Your task to perform on an android device: toggle priority inbox in the gmail app Image 0: 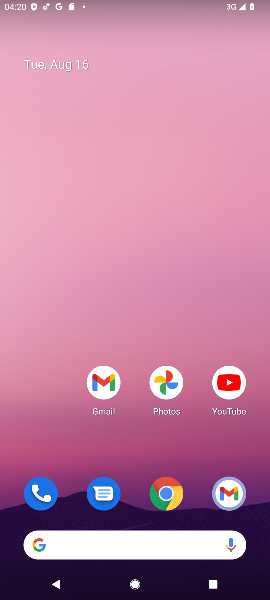
Step 0: press home button
Your task to perform on an android device: toggle priority inbox in the gmail app Image 1: 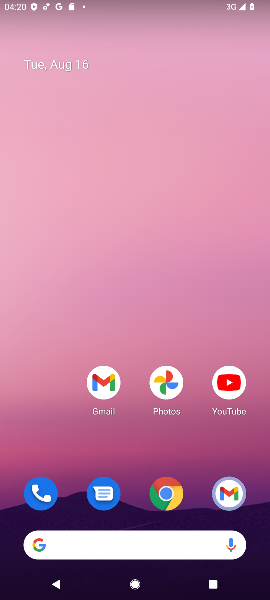
Step 1: drag from (68, 496) to (80, 182)
Your task to perform on an android device: toggle priority inbox in the gmail app Image 2: 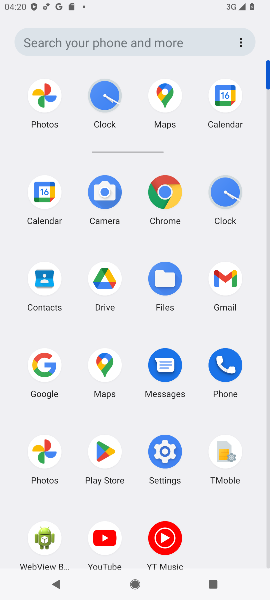
Step 2: click (224, 275)
Your task to perform on an android device: toggle priority inbox in the gmail app Image 3: 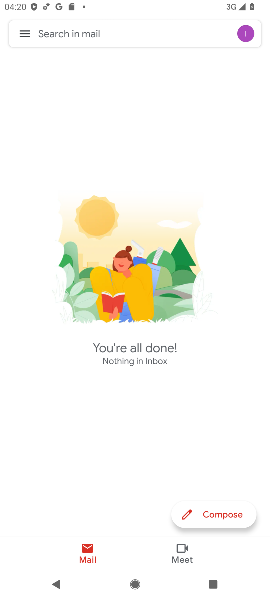
Step 3: click (26, 27)
Your task to perform on an android device: toggle priority inbox in the gmail app Image 4: 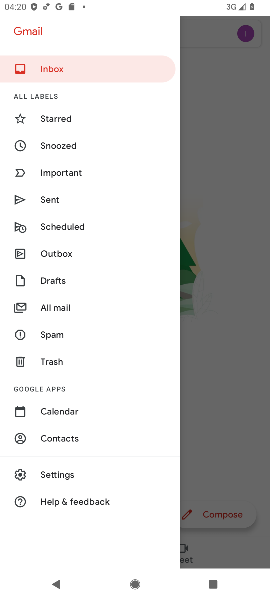
Step 4: click (73, 477)
Your task to perform on an android device: toggle priority inbox in the gmail app Image 5: 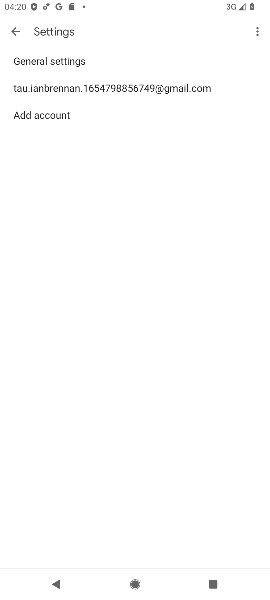
Step 5: click (117, 85)
Your task to perform on an android device: toggle priority inbox in the gmail app Image 6: 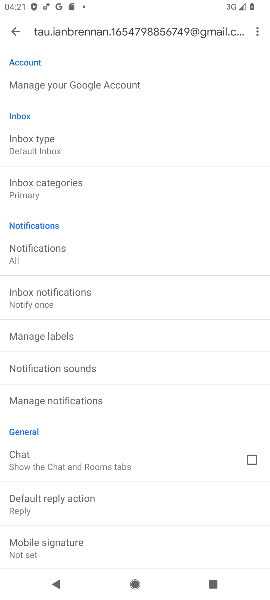
Step 6: click (77, 151)
Your task to perform on an android device: toggle priority inbox in the gmail app Image 7: 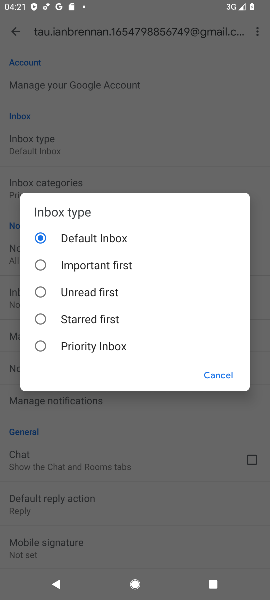
Step 7: click (97, 349)
Your task to perform on an android device: toggle priority inbox in the gmail app Image 8: 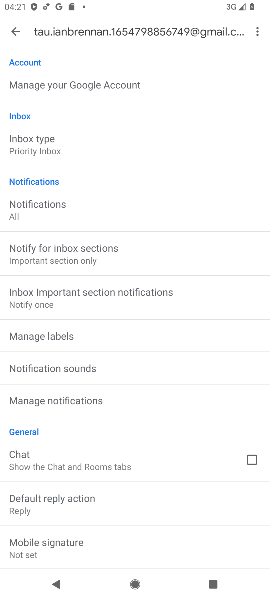
Step 8: task complete